Your task to perform on an android device: Add "usb-a" to the cart on newegg, then select checkout. Image 0: 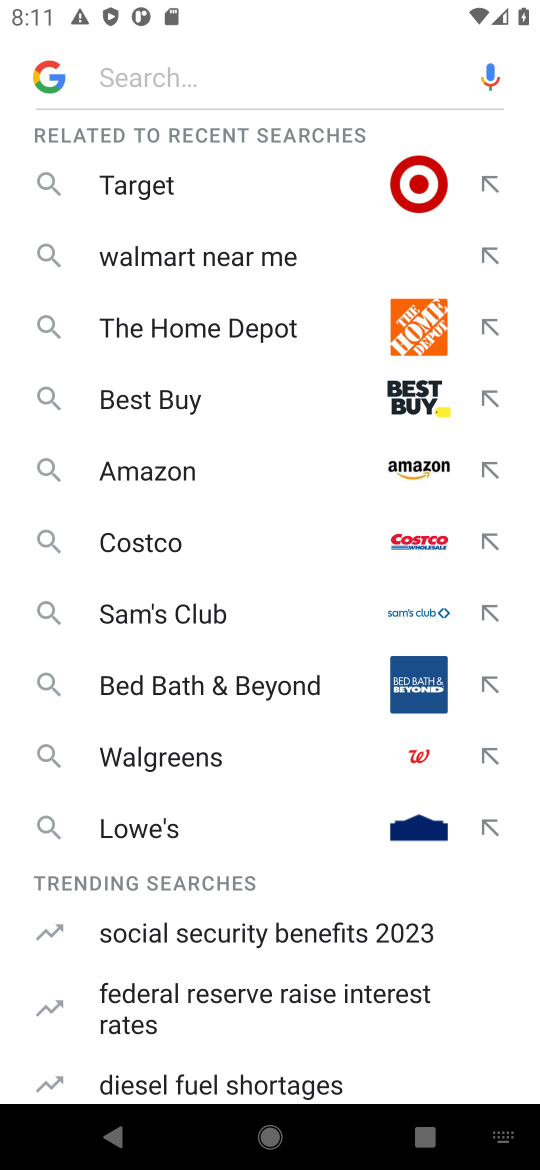
Step 0: type "newegg"
Your task to perform on an android device: Add "usb-a" to the cart on newegg, then select checkout. Image 1: 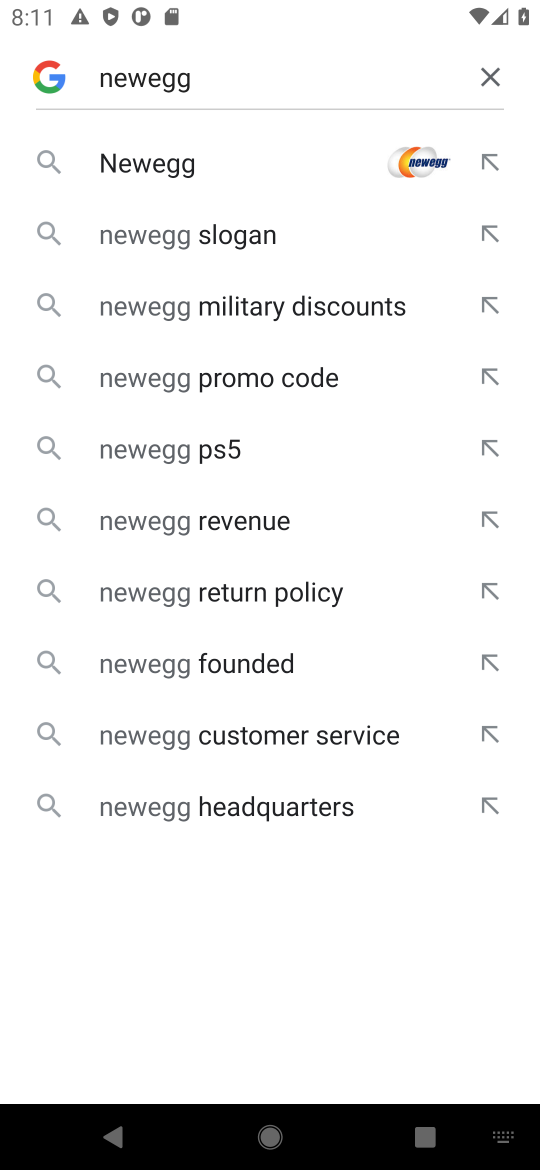
Step 1: press enter
Your task to perform on an android device: Add "usb-a" to the cart on newegg, then select checkout. Image 2: 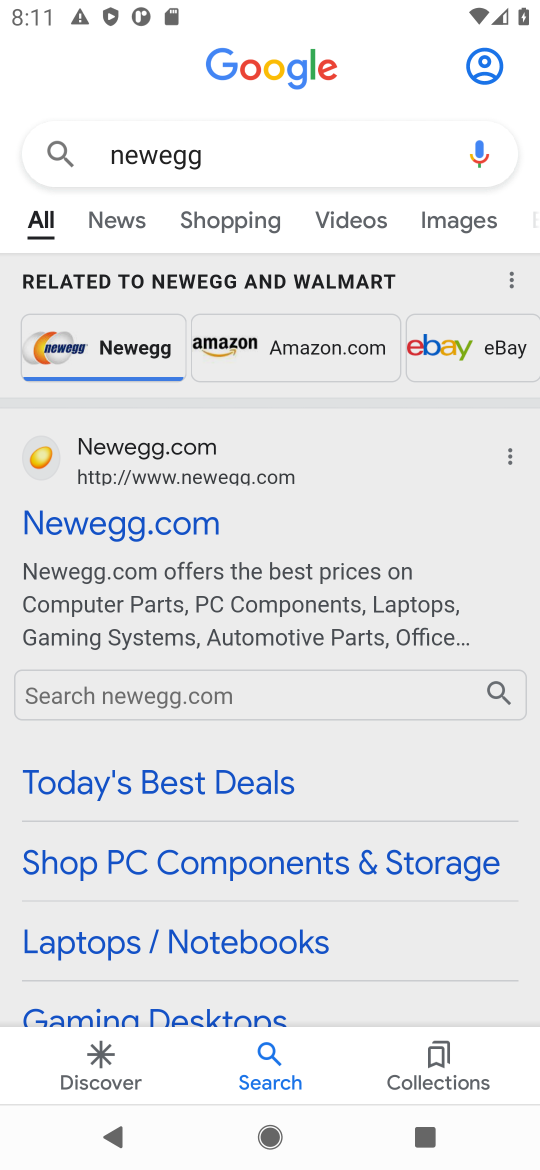
Step 2: click (157, 526)
Your task to perform on an android device: Add "usb-a" to the cart on newegg, then select checkout. Image 3: 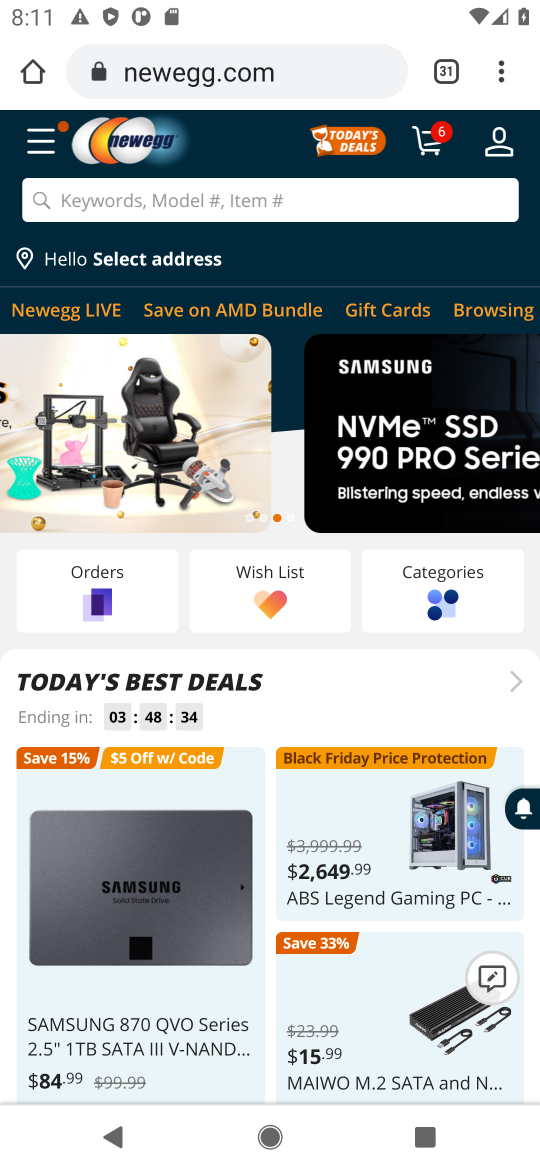
Step 3: click (74, 191)
Your task to perform on an android device: Add "usb-a" to the cart on newegg, then select checkout. Image 4: 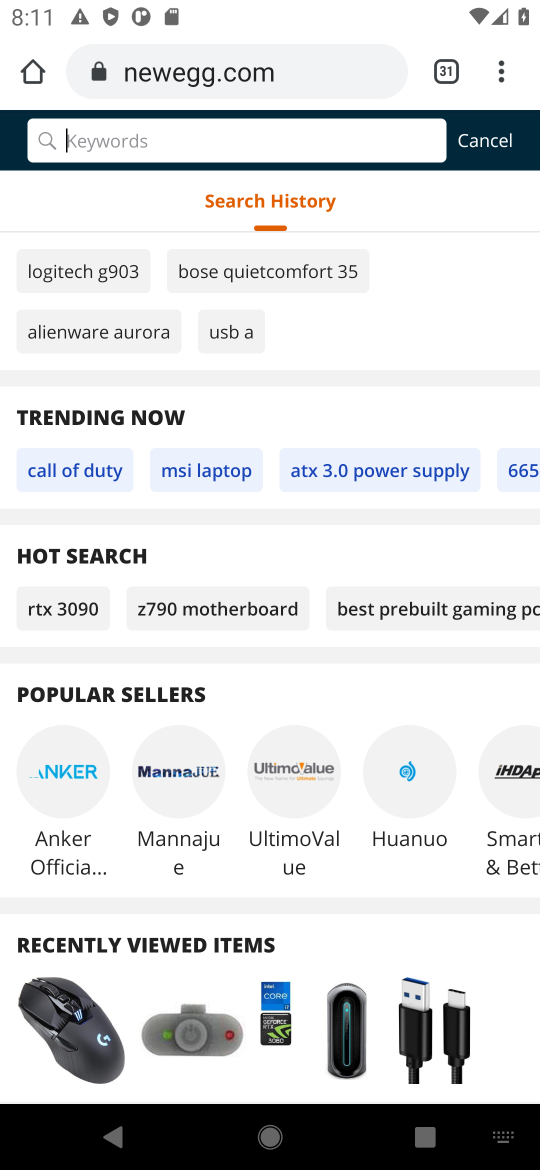
Step 4: type "usb-a"
Your task to perform on an android device: Add "usb-a" to the cart on newegg, then select checkout. Image 5: 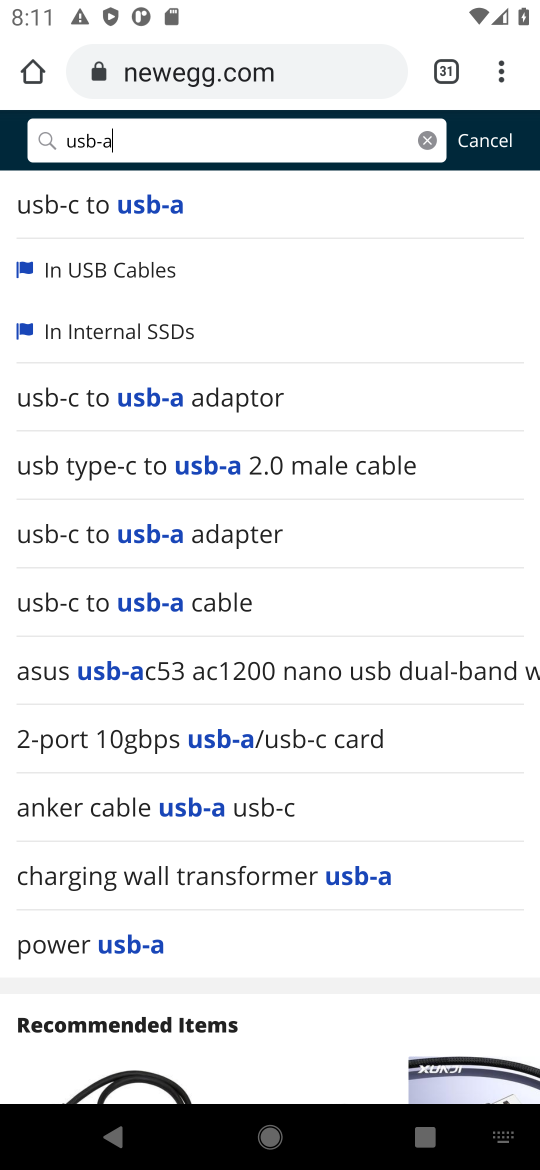
Step 5: press enter
Your task to perform on an android device: Add "usb-a" to the cart on newegg, then select checkout. Image 6: 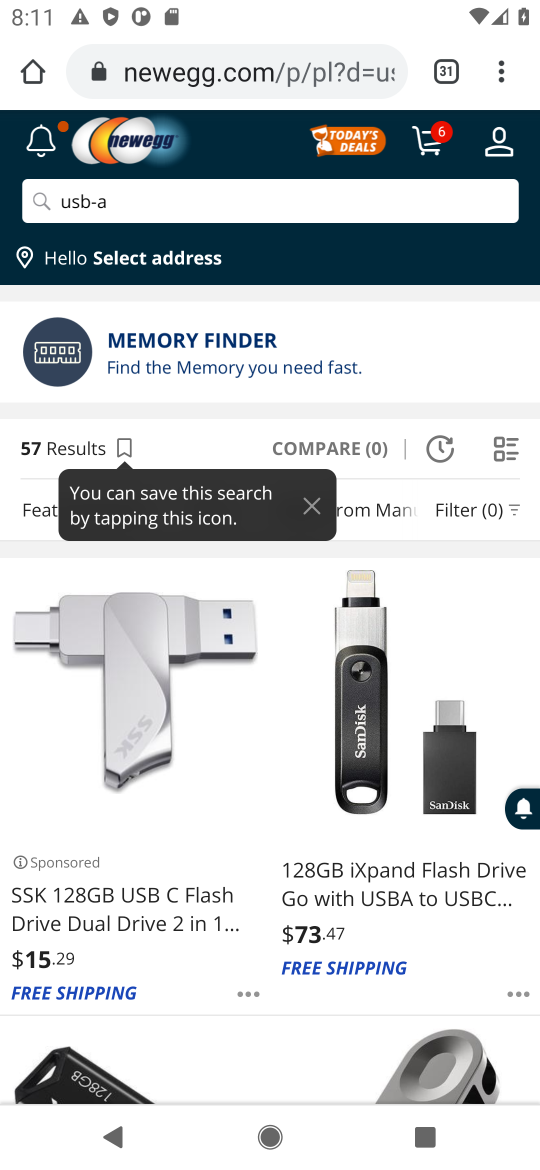
Step 6: drag from (396, 913) to (375, 461)
Your task to perform on an android device: Add "usb-a" to the cart on newegg, then select checkout. Image 7: 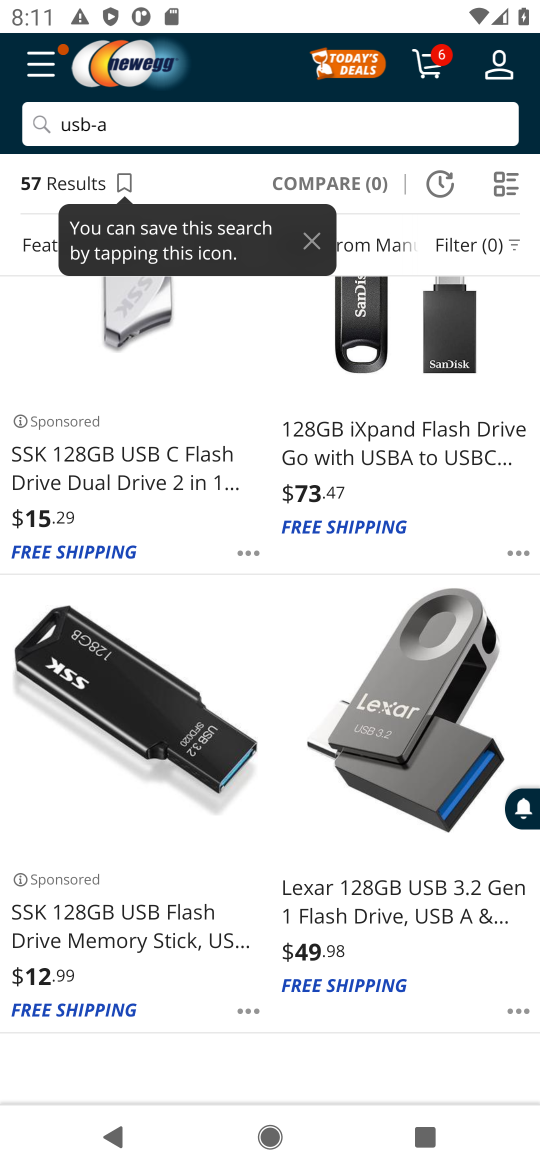
Step 7: drag from (301, 825) to (281, 394)
Your task to perform on an android device: Add "usb-a" to the cart on newegg, then select checkout. Image 8: 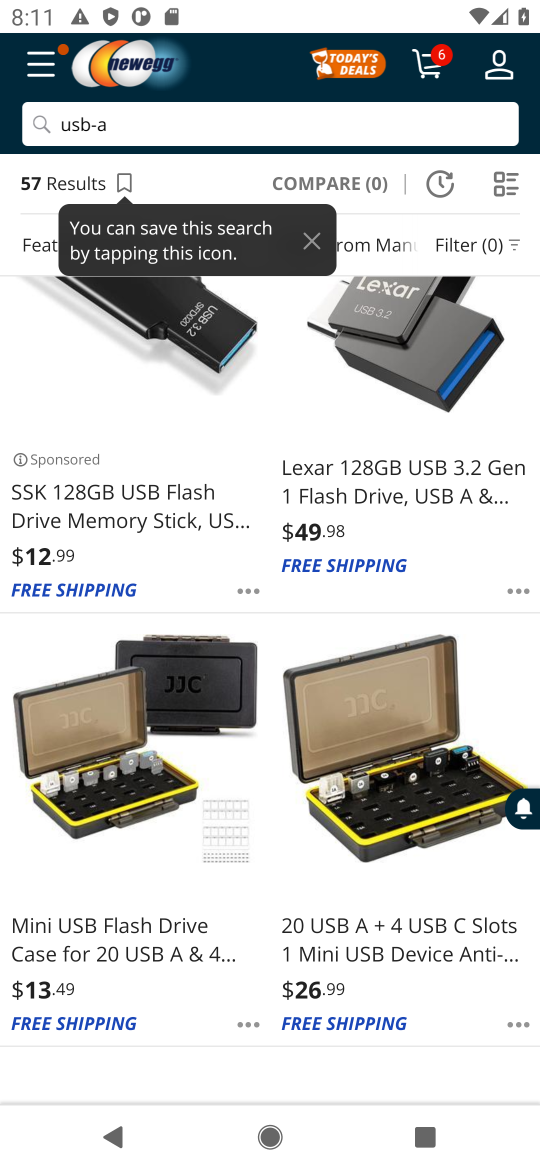
Step 8: drag from (251, 772) to (247, 605)
Your task to perform on an android device: Add "usb-a" to the cart on newegg, then select checkout. Image 9: 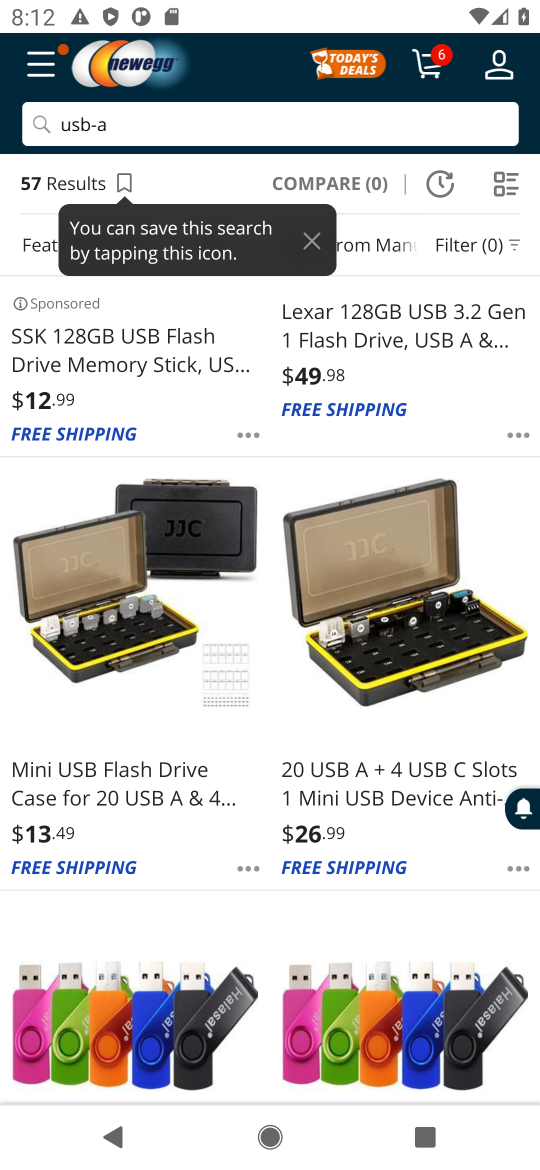
Step 9: drag from (290, 889) to (304, 596)
Your task to perform on an android device: Add "usb-a" to the cart on newegg, then select checkout. Image 10: 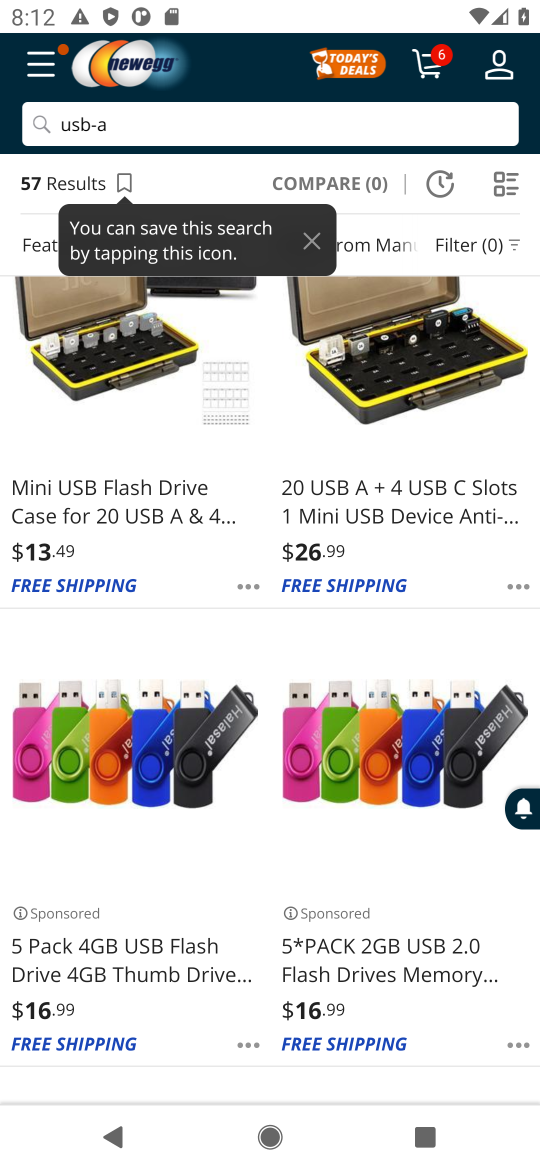
Step 10: click (417, 483)
Your task to perform on an android device: Add "usb-a" to the cart on newegg, then select checkout. Image 11: 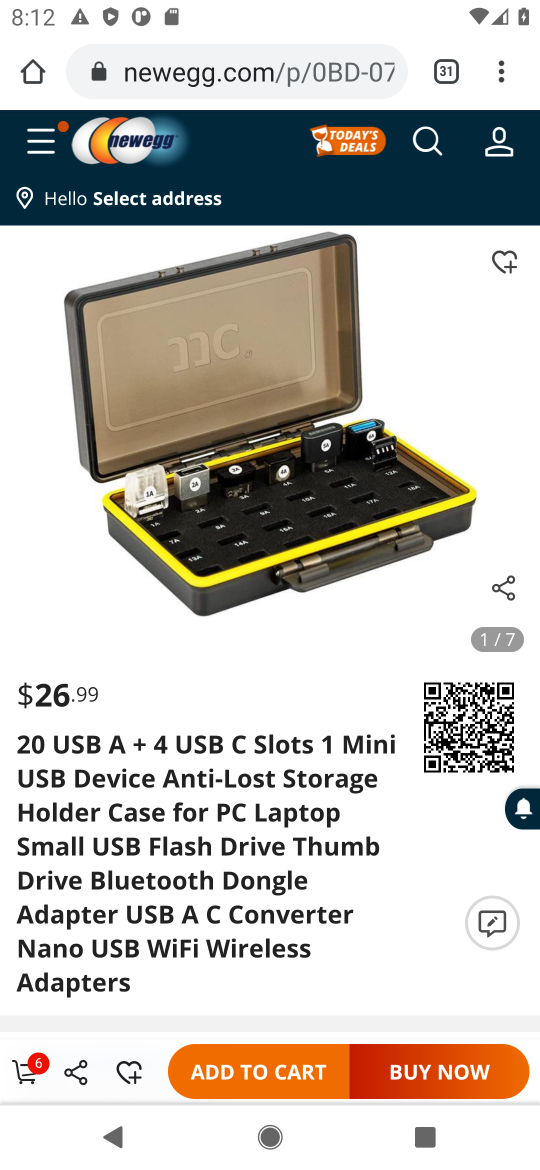
Step 11: drag from (254, 930) to (310, 649)
Your task to perform on an android device: Add "usb-a" to the cart on newegg, then select checkout. Image 12: 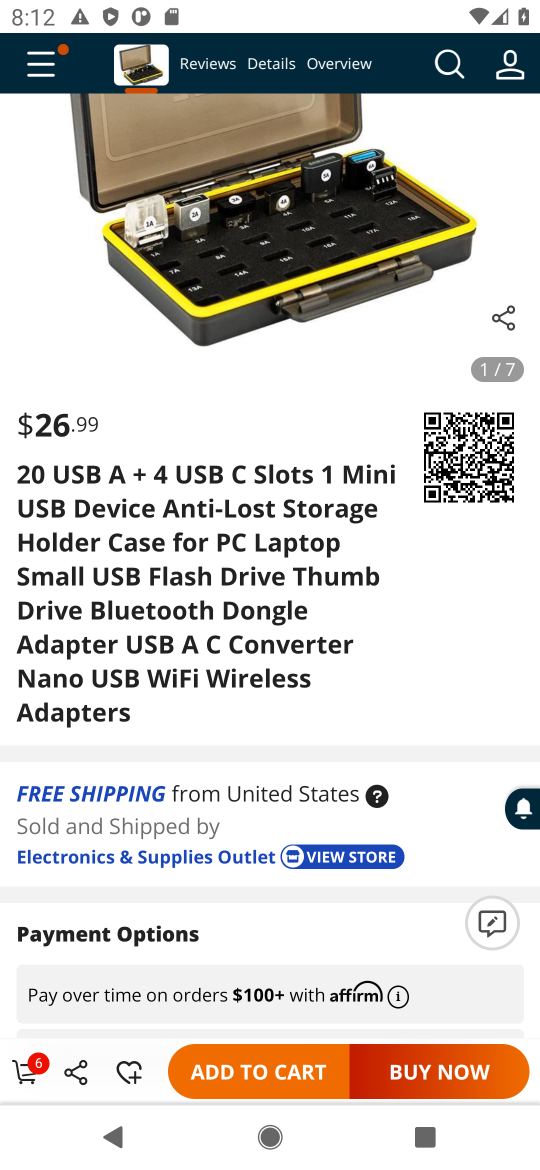
Step 12: click (266, 1070)
Your task to perform on an android device: Add "usb-a" to the cart on newegg, then select checkout. Image 13: 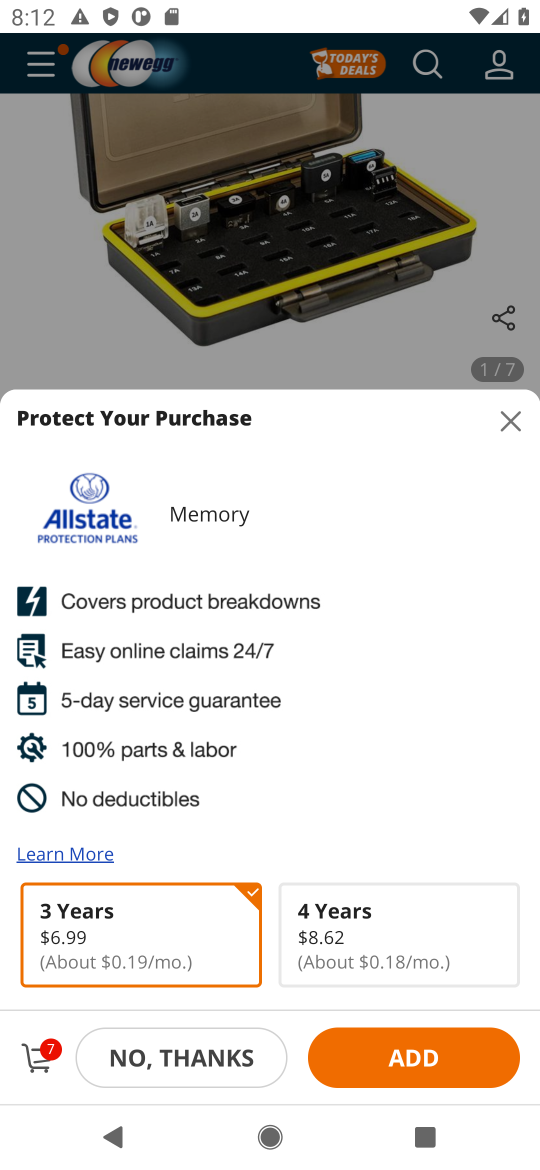
Step 13: click (402, 1072)
Your task to perform on an android device: Add "usb-a" to the cart on newegg, then select checkout. Image 14: 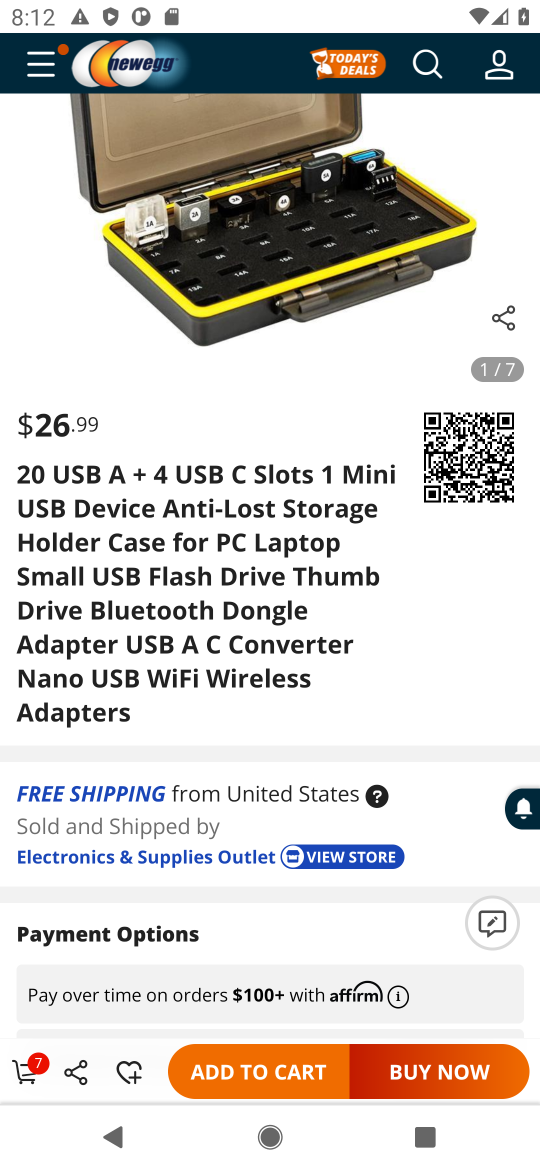
Step 14: click (27, 1071)
Your task to perform on an android device: Add "usb-a" to the cart on newegg, then select checkout. Image 15: 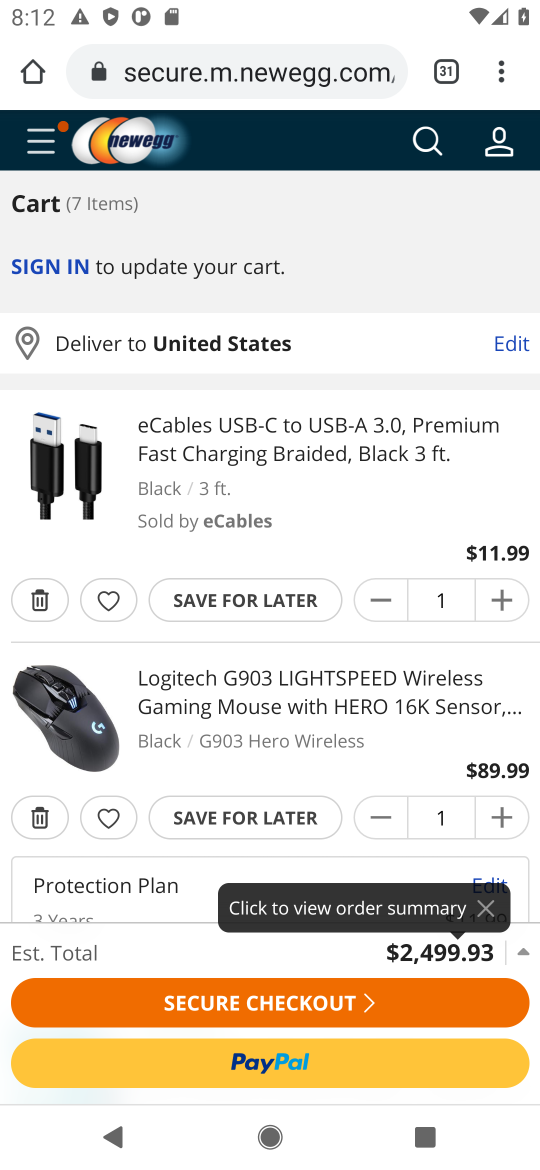
Step 15: click (284, 1004)
Your task to perform on an android device: Add "usb-a" to the cart on newegg, then select checkout. Image 16: 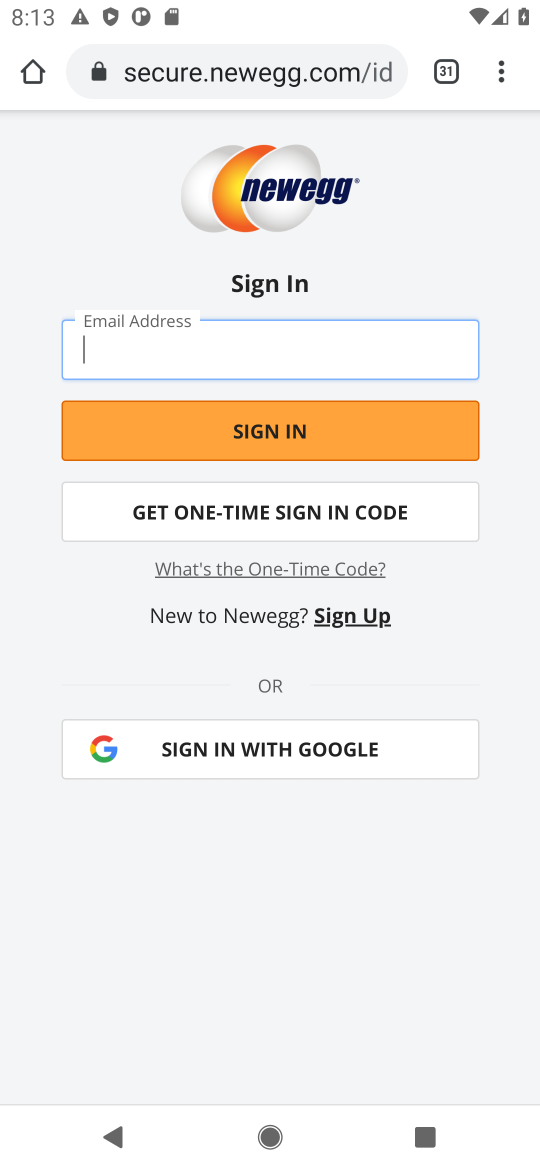
Step 16: task complete